Your task to perform on an android device: Open Youtube and go to the subscriptions tab Image 0: 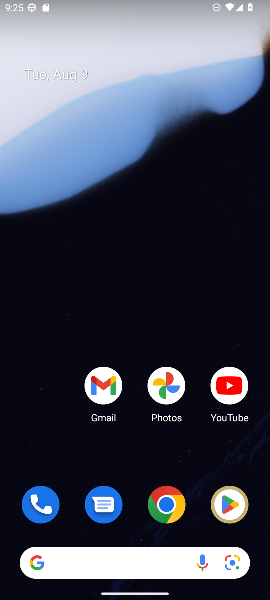
Step 0: click (231, 386)
Your task to perform on an android device: Open Youtube and go to the subscriptions tab Image 1: 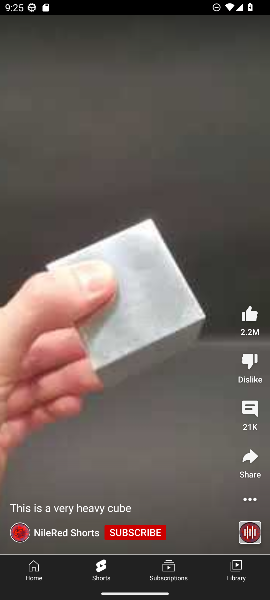
Step 1: click (165, 564)
Your task to perform on an android device: Open Youtube and go to the subscriptions tab Image 2: 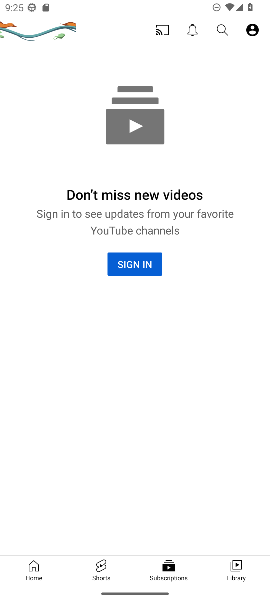
Step 2: task complete